Your task to perform on an android device: uninstall "Spotify: Music and Podcasts" Image 0: 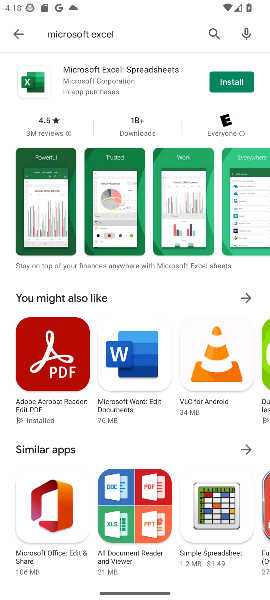
Step 0: click (219, 31)
Your task to perform on an android device: uninstall "Spotify: Music and Podcasts" Image 1: 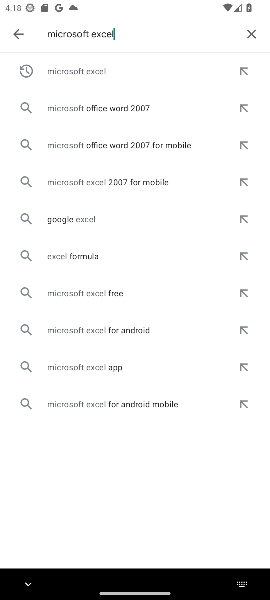
Step 1: click (254, 40)
Your task to perform on an android device: uninstall "Spotify: Music and Podcasts" Image 2: 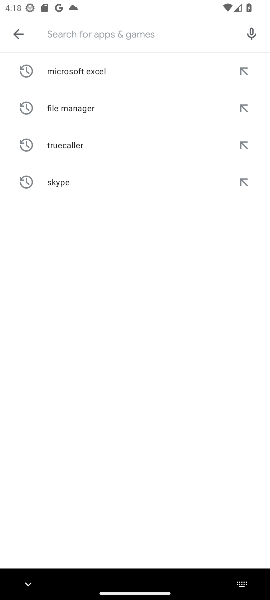
Step 2: type "Spotify: Music and Podcasts"
Your task to perform on an android device: uninstall "Spotify: Music and Podcasts" Image 3: 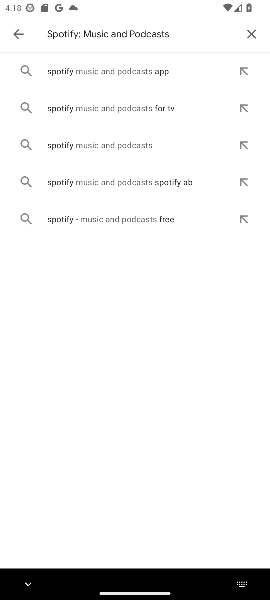
Step 3: click (127, 77)
Your task to perform on an android device: uninstall "Spotify: Music and Podcasts" Image 4: 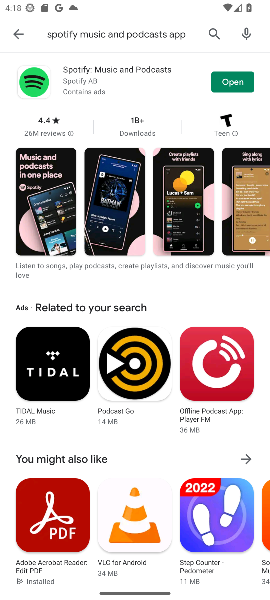
Step 4: click (72, 76)
Your task to perform on an android device: uninstall "Spotify: Music and Podcasts" Image 5: 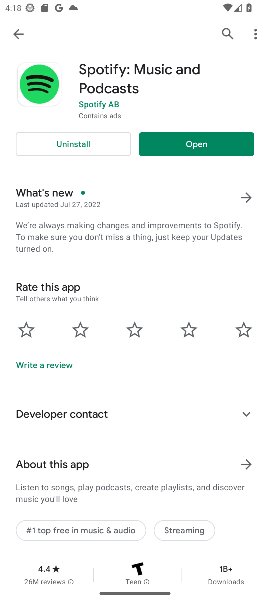
Step 5: click (55, 151)
Your task to perform on an android device: uninstall "Spotify: Music and Podcasts" Image 6: 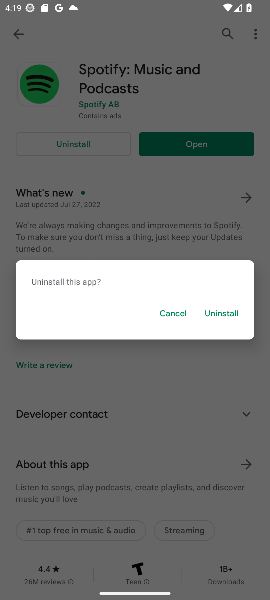
Step 6: click (228, 314)
Your task to perform on an android device: uninstall "Spotify: Music and Podcasts" Image 7: 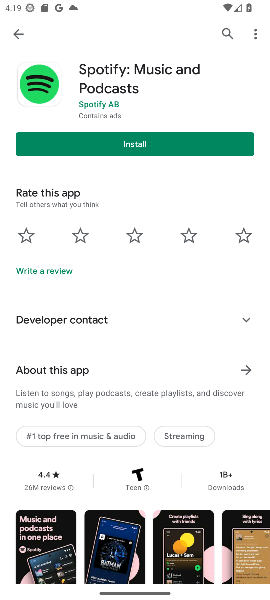
Step 7: task complete